Your task to perform on an android device: toggle notifications settings in the gmail app Image 0: 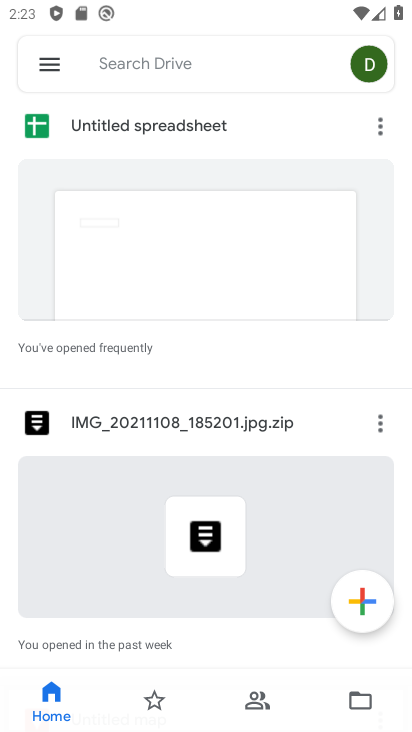
Step 0: press home button
Your task to perform on an android device: toggle notifications settings in the gmail app Image 1: 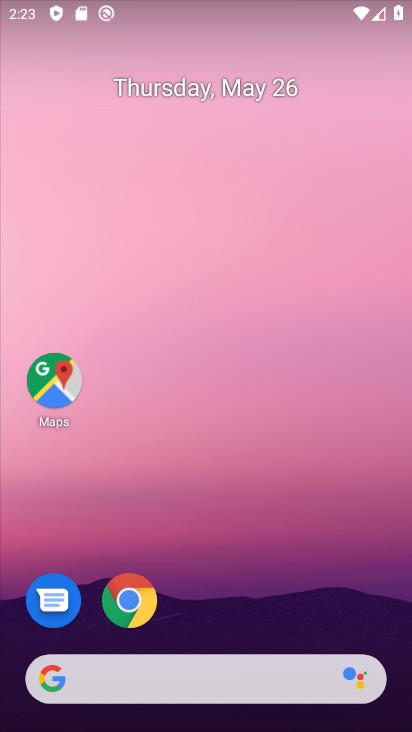
Step 1: drag from (186, 646) to (351, 74)
Your task to perform on an android device: toggle notifications settings in the gmail app Image 2: 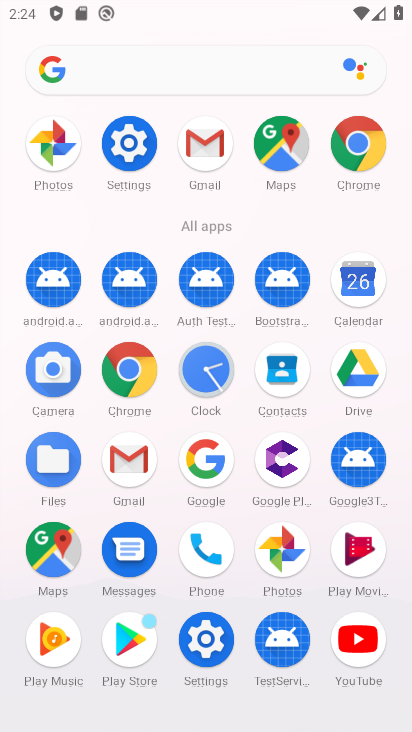
Step 2: click (125, 447)
Your task to perform on an android device: toggle notifications settings in the gmail app Image 3: 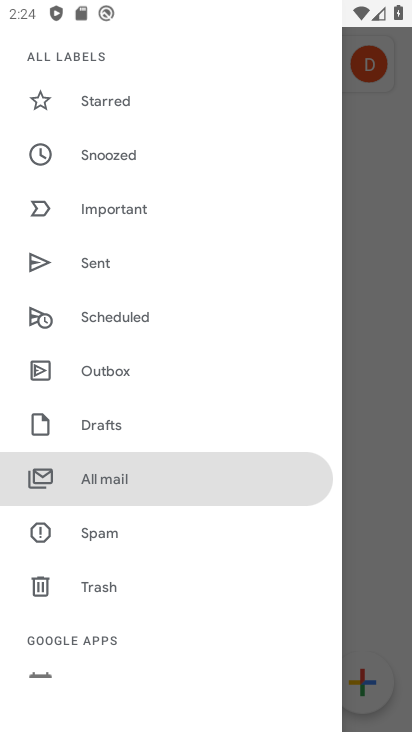
Step 3: drag from (175, 639) to (273, 341)
Your task to perform on an android device: toggle notifications settings in the gmail app Image 4: 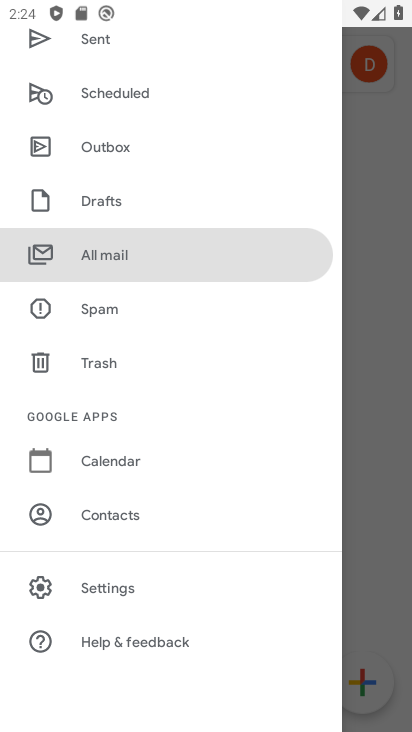
Step 4: click (143, 594)
Your task to perform on an android device: toggle notifications settings in the gmail app Image 5: 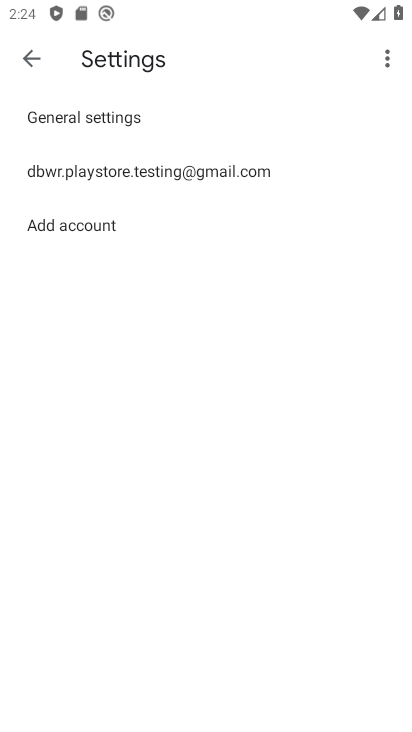
Step 5: click (220, 172)
Your task to perform on an android device: toggle notifications settings in the gmail app Image 6: 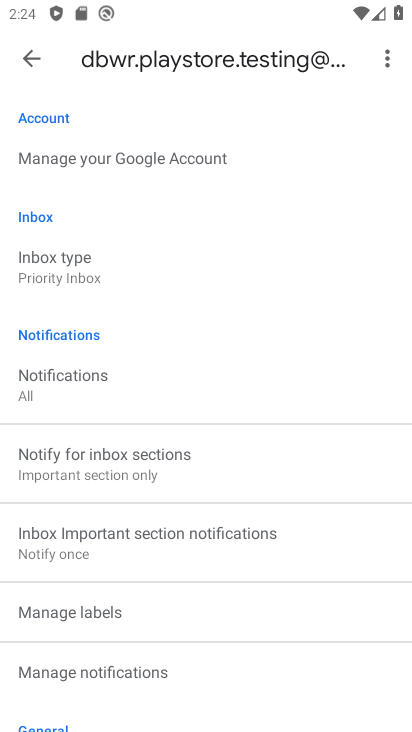
Step 6: drag from (220, 590) to (305, 291)
Your task to perform on an android device: toggle notifications settings in the gmail app Image 7: 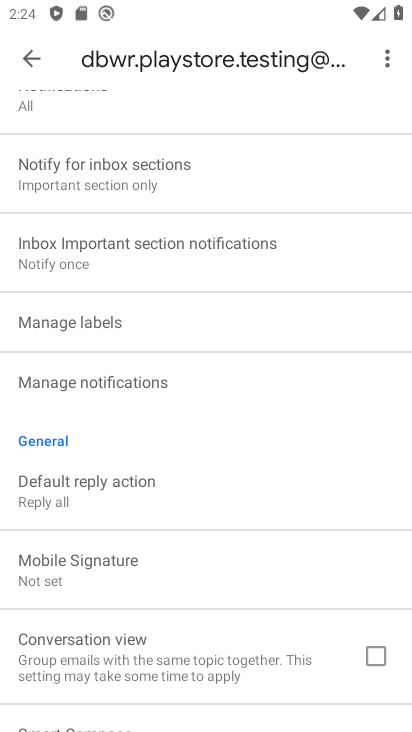
Step 7: click (204, 389)
Your task to perform on an android device: toggle notifications settings in the gmail app Image 8: 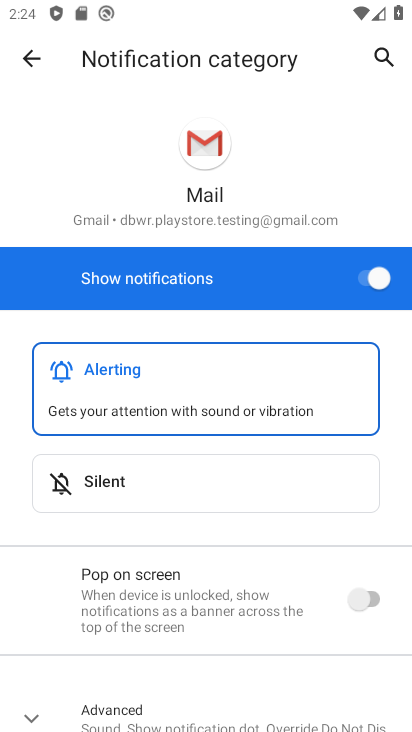
Step 8: click (361, 285)
Your task to perform on an android device: toggle notifications settings in the gmail app Image 9: 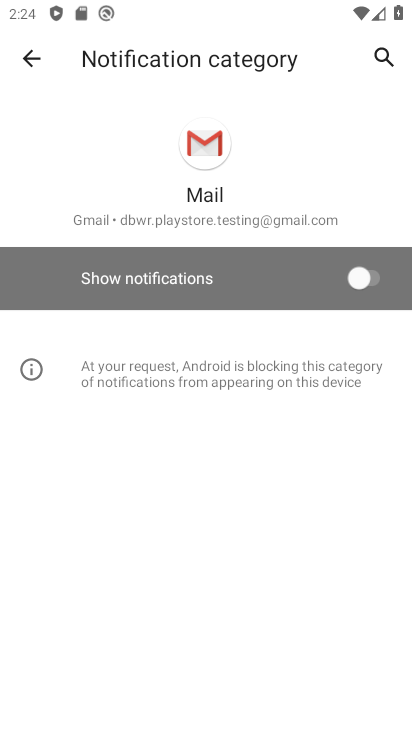
Step 9: task complete